Your task to perform on an android device: Open Google Maps and go to "Timeline" Image 0: 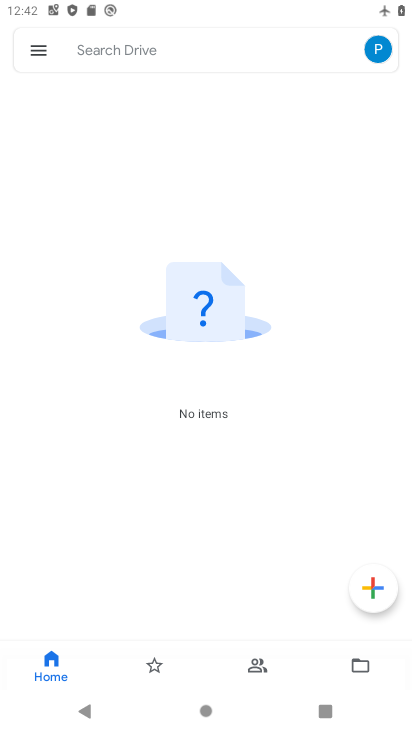
Step 0: press home button
Your task to perform on an android device: Open Google Maps and go to "Timeline" Image 1: 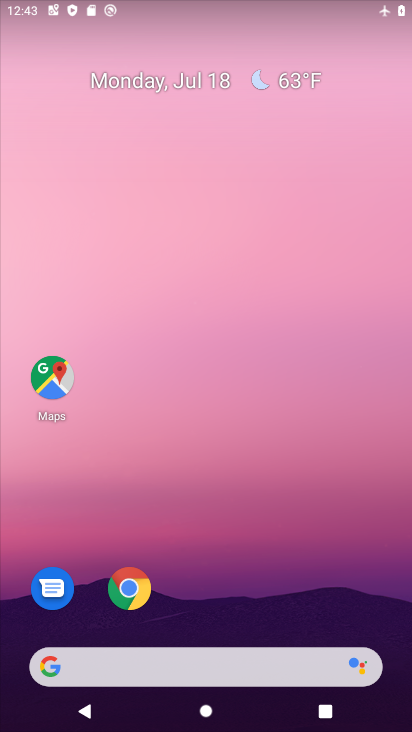
Step 1: drag from (237, 710) to (230, 115)
Your task to perform on an android device: Open Google Maps and go to "Timeline" Image 2: 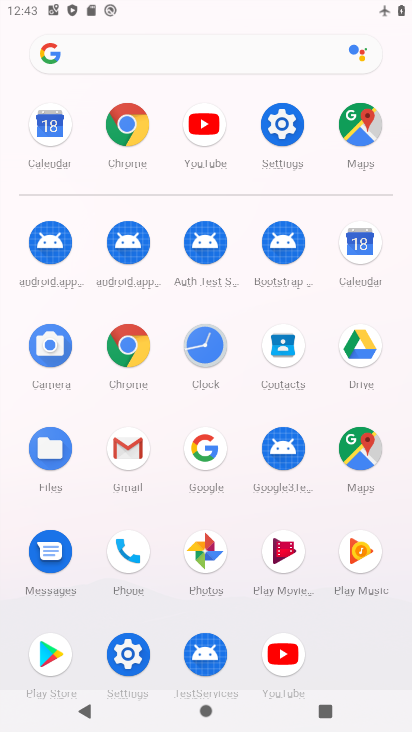
Step 2: click (366, 450)
Your task to perform on an android device: Open Google Maps and go to "Timeline" Image 3: 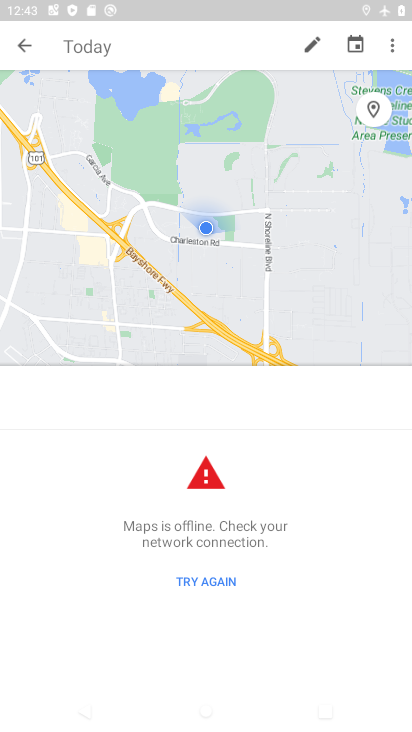
Step 3: task complete